Your task to perform on an android device: check android version Image 0: 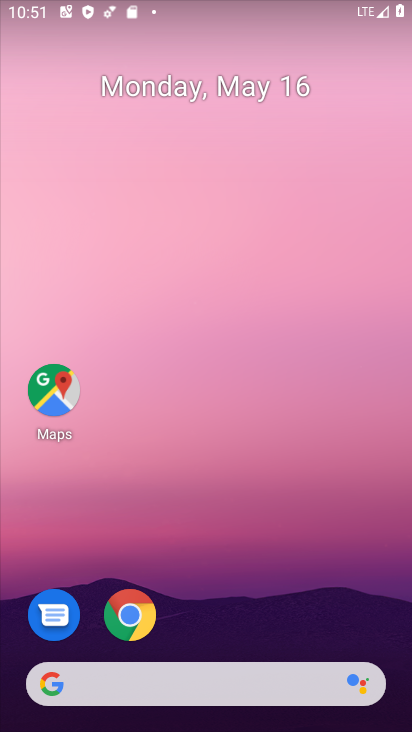
Step 0: drag from (251, 451) to (279, 90)
Your task to perform on an android device: check android version Image 1: 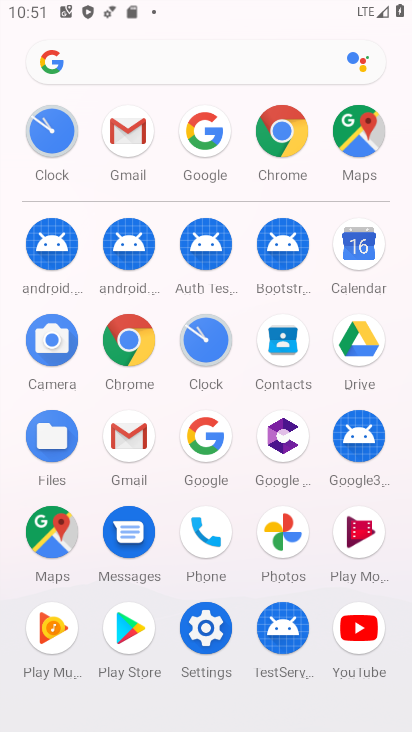
Step 1: click (210, 632)
Your task to perform on an android device: check android version Image 2: 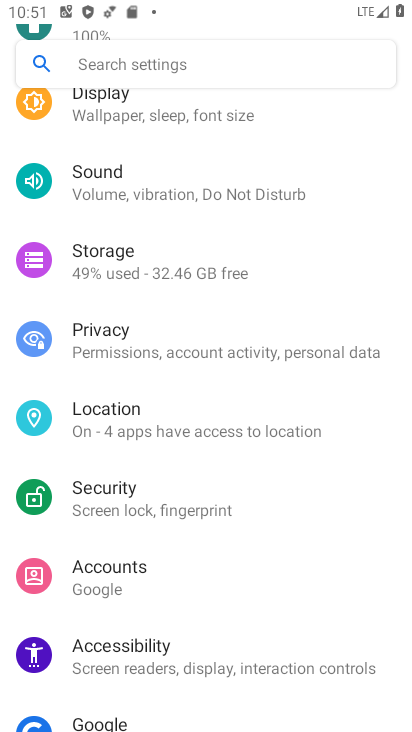
Step 2: drag from (218, 600) to (236, 258)
Your task to perform on an android device: check android version Image 3: 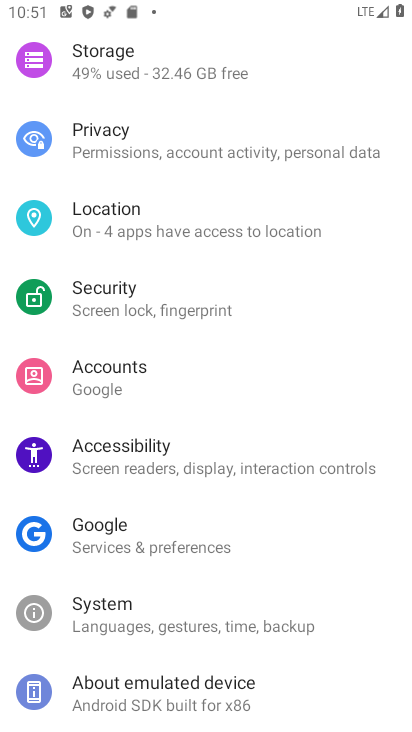
Step 3: click (142, 693)
Your task to perform on an android device: check android version Image 4: 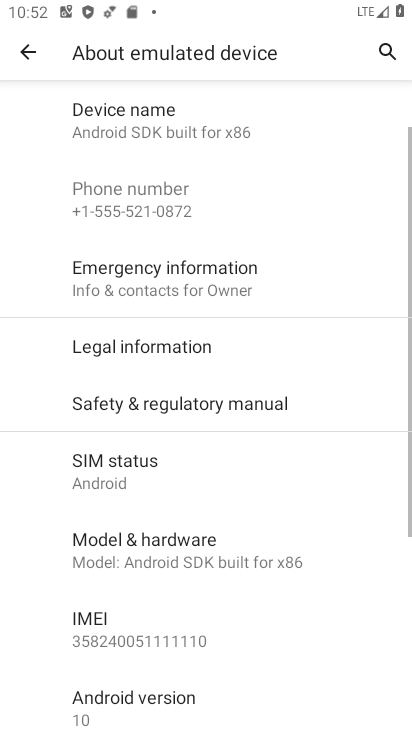
Step 4: drag from (210, 556) to (230, 193)
Your task to perform on an android device: check android version Image 5: 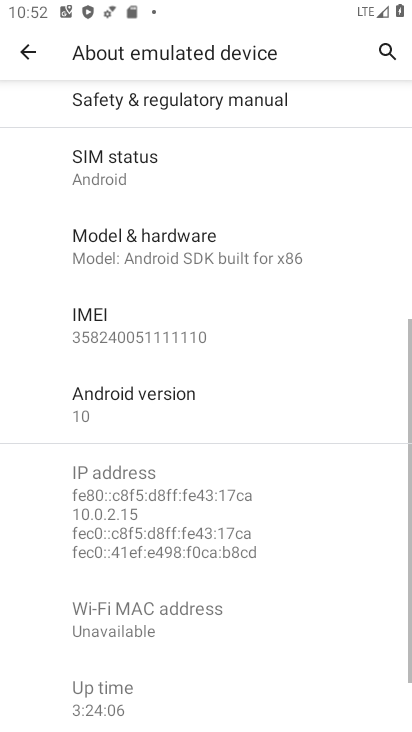
Step 5: click (189, 423)
Your task to perform on an android device: check android version Image 6: 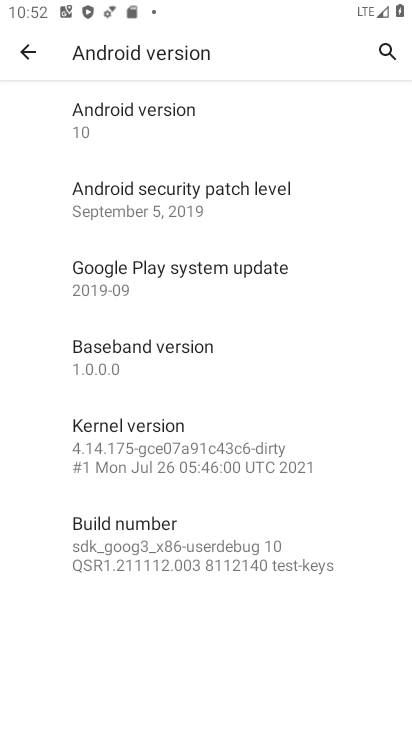
Step 6: task complete